Your task to perform on an android device: Is it going to rain tomorrow? Image 0: 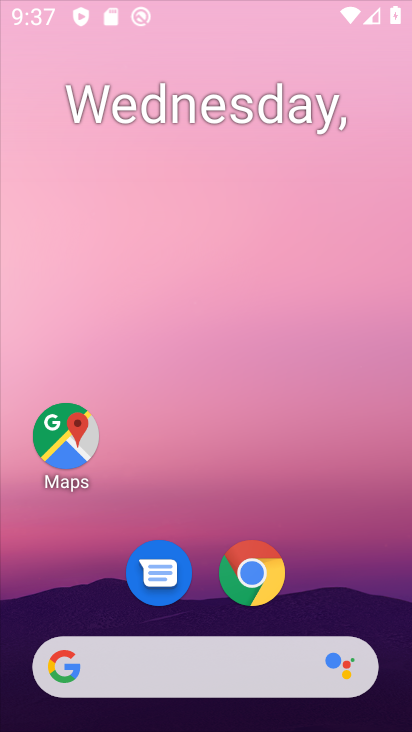
Step 0: click (283, 187)
Your task to perform on an android device: Is it going to rain tomorrow? Image 1: 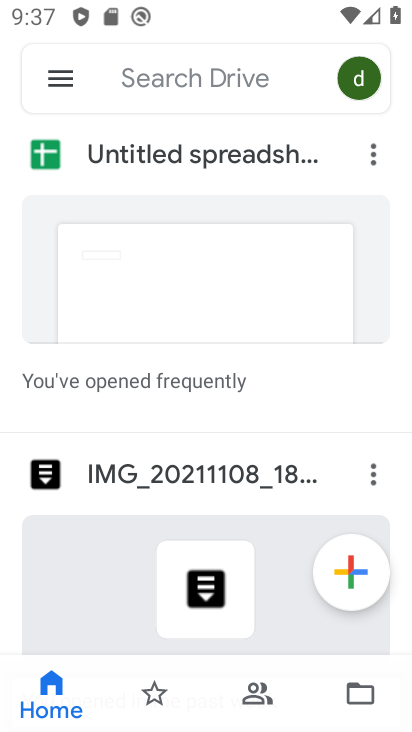
Step 1: press home button
Your task to perform on an android device: Is it going to rain tomorrow? Image 2: 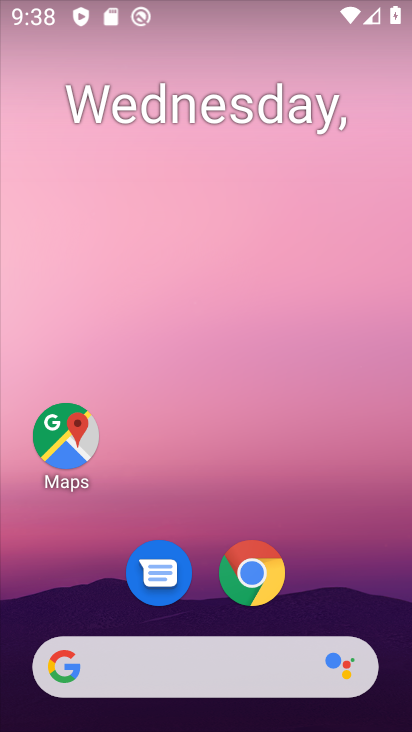
Step 2: click (244, 564)
Your task to perform on an android device: Is it going to rain tomorrow? Image 3: 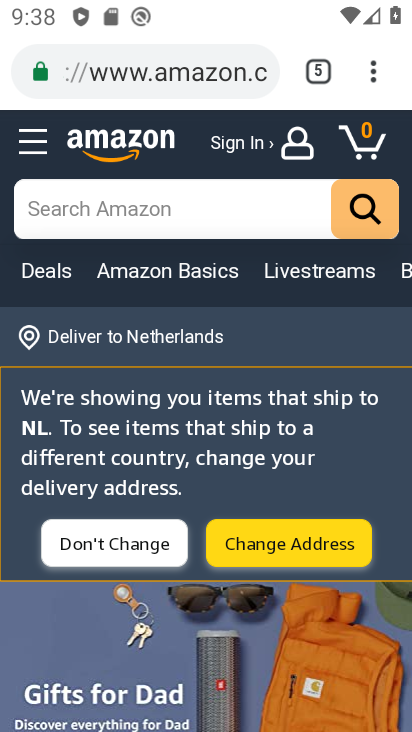
Step 3: click (372, 72)
Your task to perform on an android device: Is it going to rain tomorrow? Image 4: 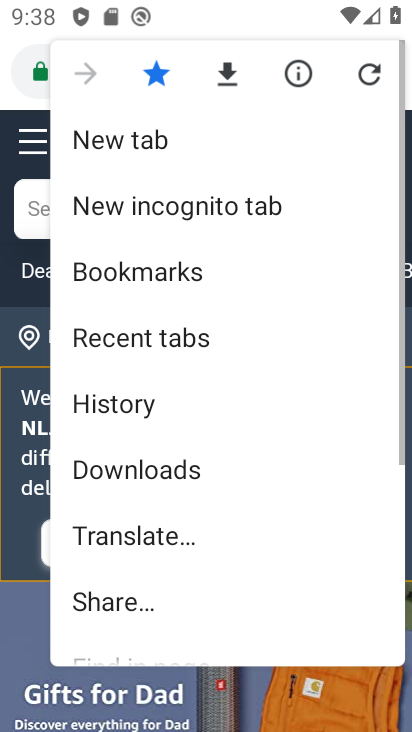
Step 4: click (127, 152)
Your task to perform on an android device: Is it going to rain tomorrow? Image 5: 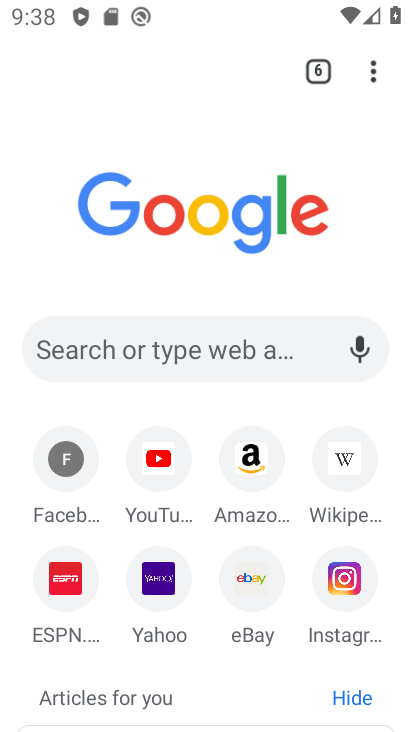
Step 5: click (183, 345)
Your task to perform on an android device: Is it going to rain tomorrow? Image 6: 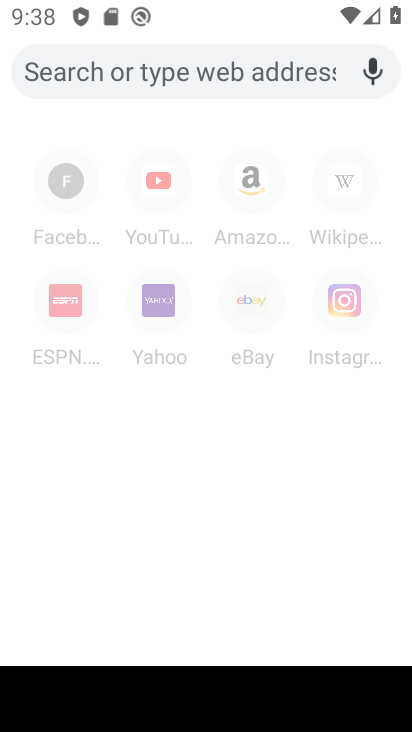
Step 6: type "Is it going to rain tomorrow?"
Your task to perform on an android device: Is it going to rain tomorrow? Image 7: 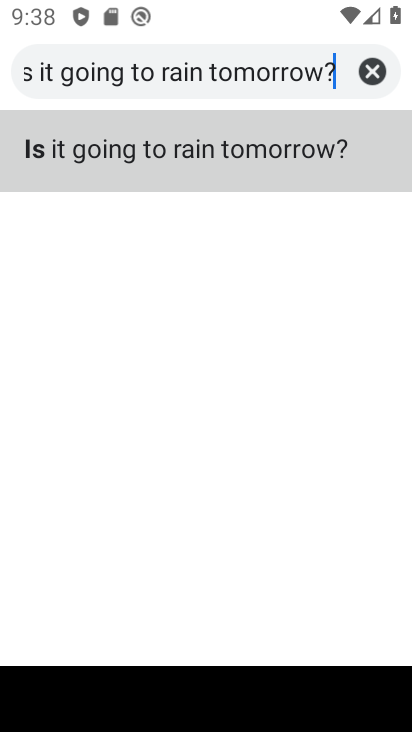
Step 7: click (239, 145)
Your task to perform on an android device: Is it going to rain tomorrow? Image 8: 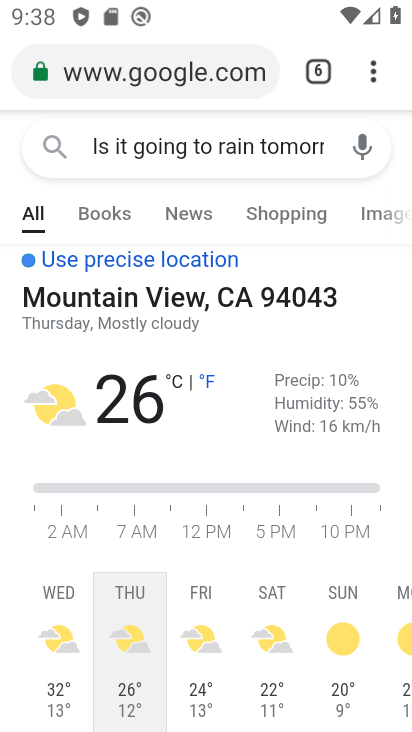
Step 8: task complete